Your task to perform on an android device: turn on airplane mode Image 0: 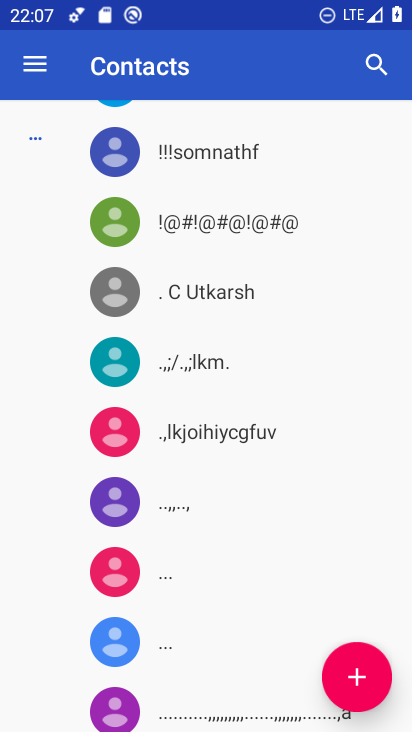
Step 0: press home button
Your task to perform on an android device: turn on airplane mode Image 1: 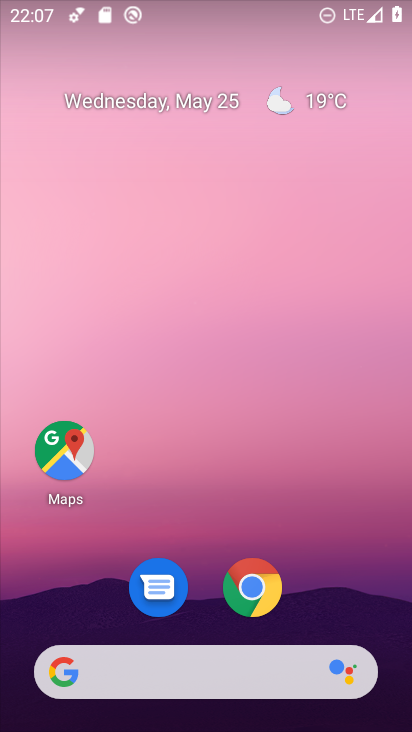
Step 1: drag from (389, 633) to (271, 120)
Your task to perform on an android device: turn on airplane mode Image 2: 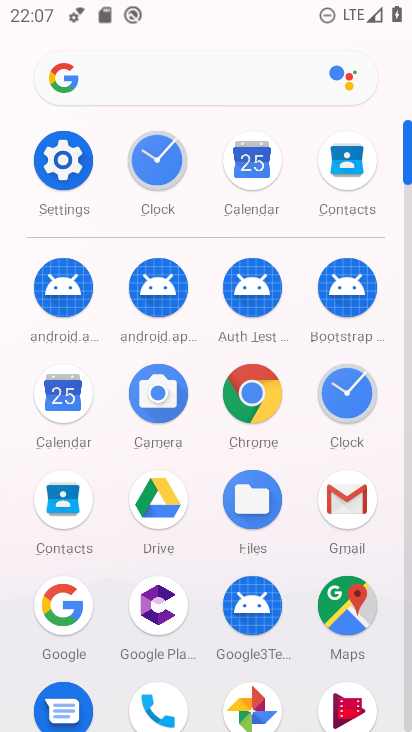
Step 2: click (408, 645)
Your task to perform on an android device: turn on airplane mode Image 3: 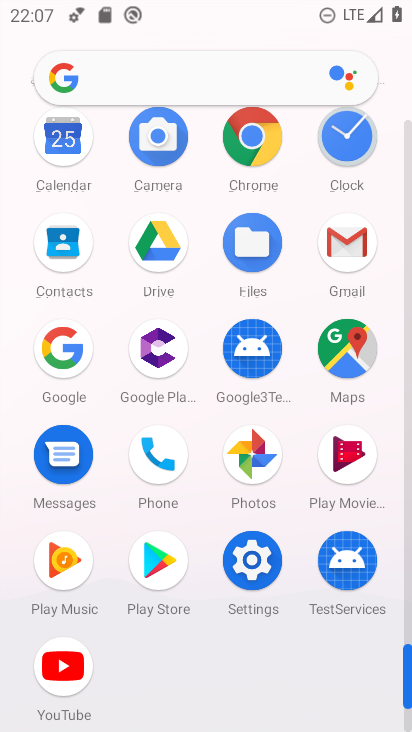
Step 3: click (251, 556)
Your task to perform on an android device: turn on airplane mode Image 4: 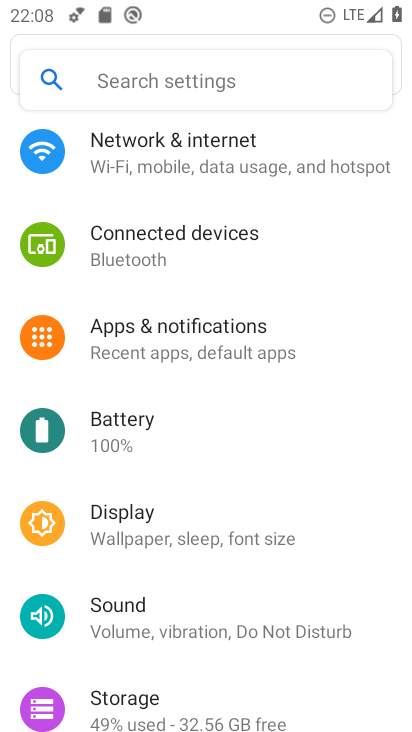
Step 4: click (144, 145)
Your task to perform on an android device: turn on airplane mode Image 5: 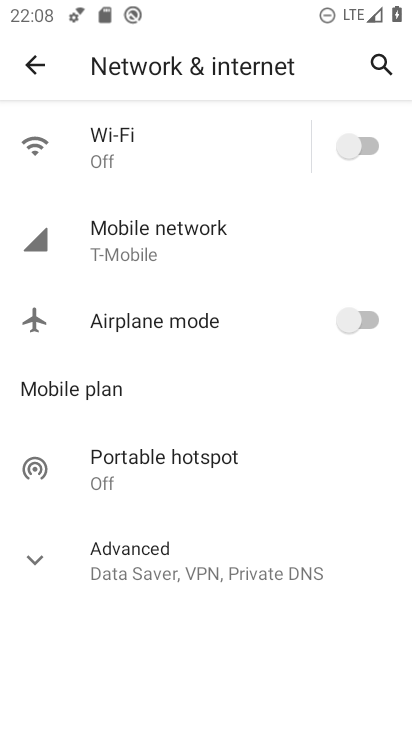
Step 5: click (375, 321)
Your task to perform on an android device: turn on airplane mode Image 6: 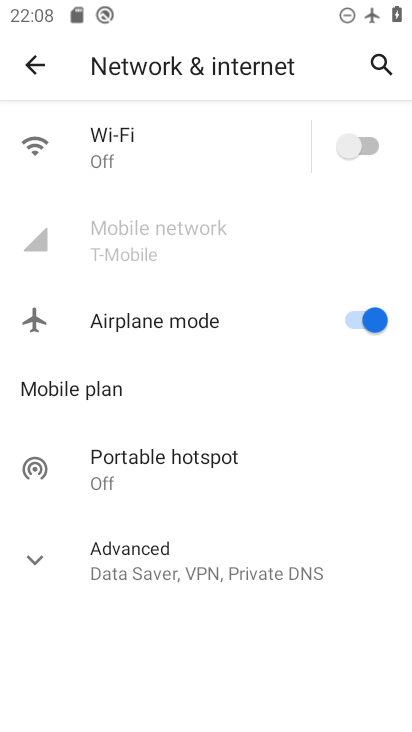
Step 6: task complete